Your task to perform on an android device: What's the news in Singapore? Image 0: 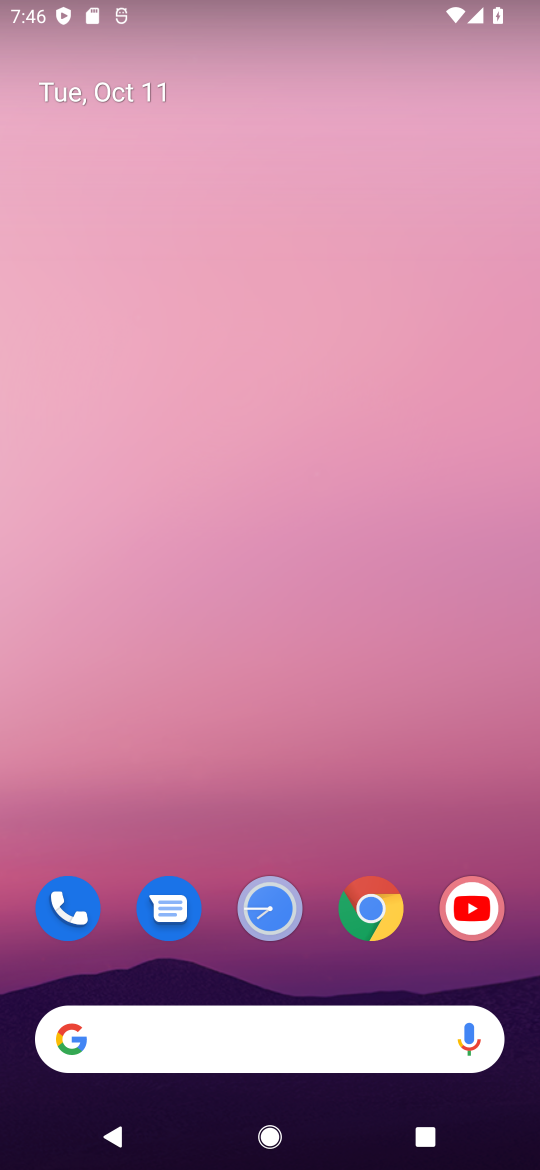
Step 0: click (365, 1033)
Your task to perform on an android device: What's the news in Singapore? Image 1: 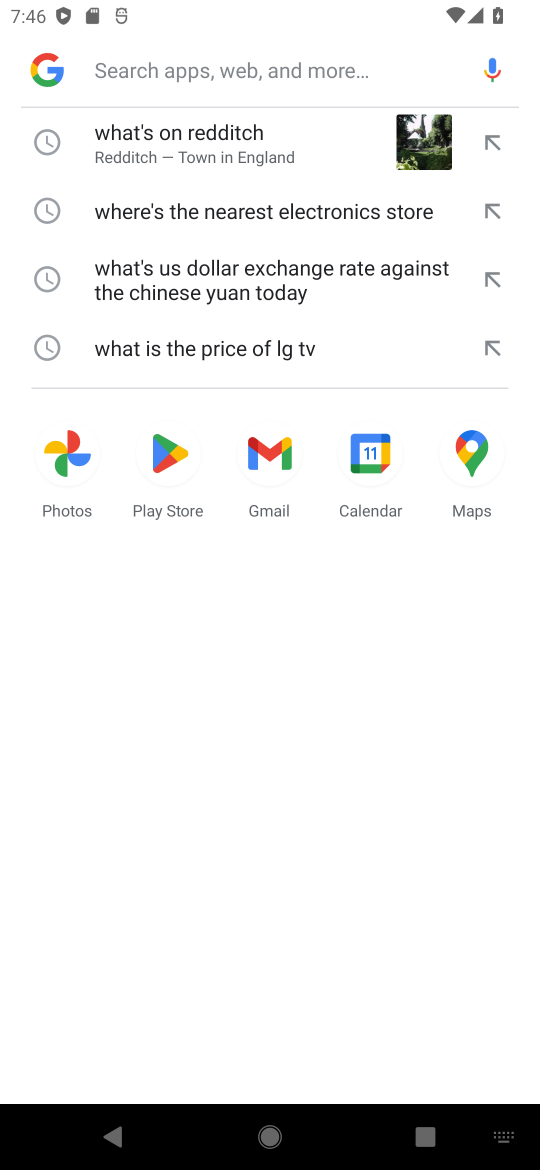
Step 1: type "What's the news in Singapore?"
Your task to perform on an android device: What's the news in Singapore? Image 2: 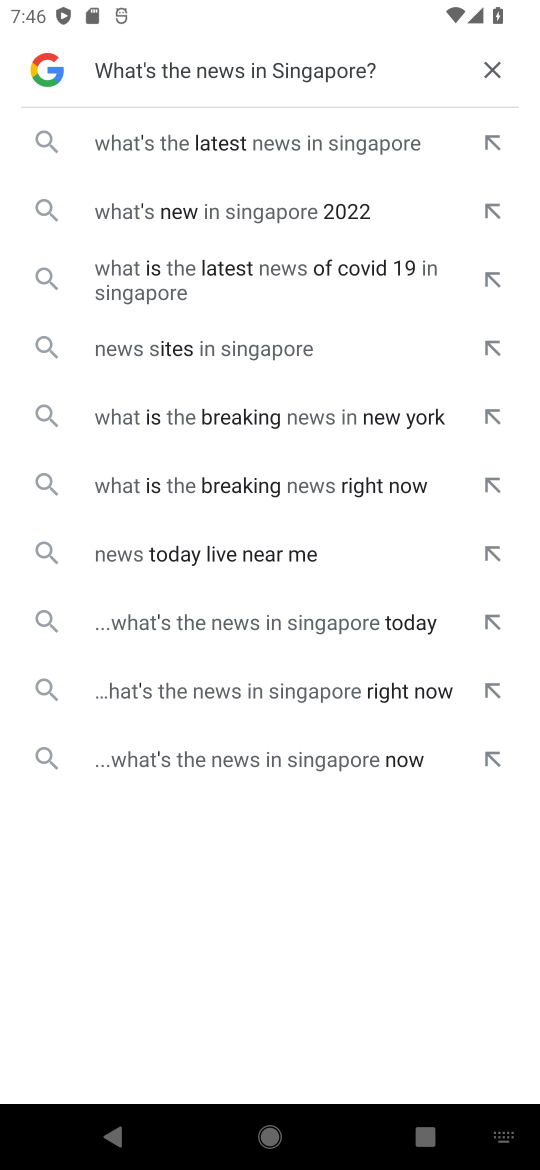
Step 2: click (215, 141)
Your task to perform on an android device: What's the news in Singapore? Image 3: 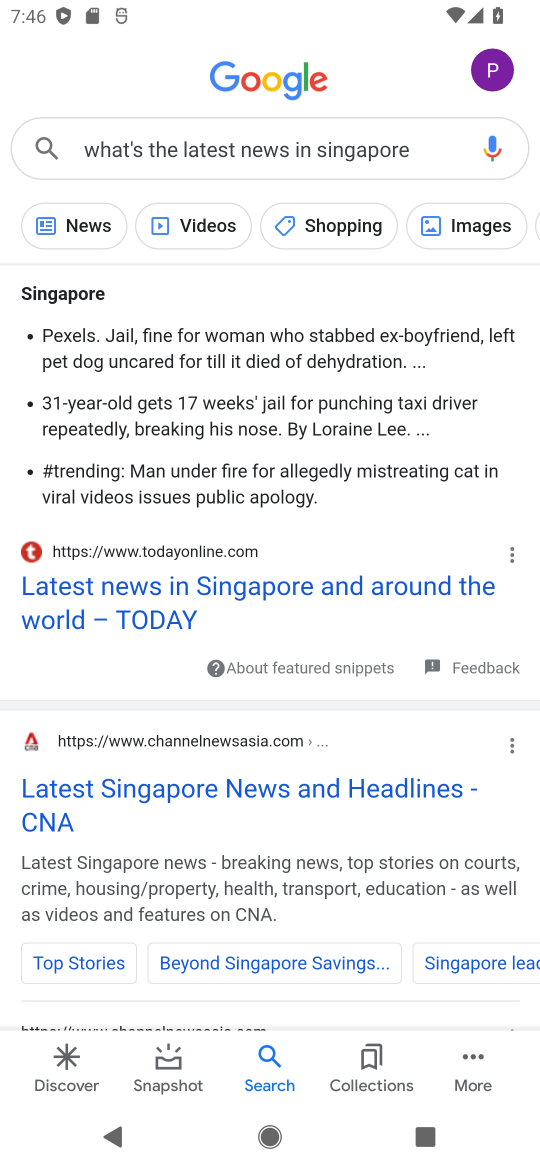
Step 3: click (186, 591)
Your task to perform on an android device: What's the news in Singapore? Image 4: 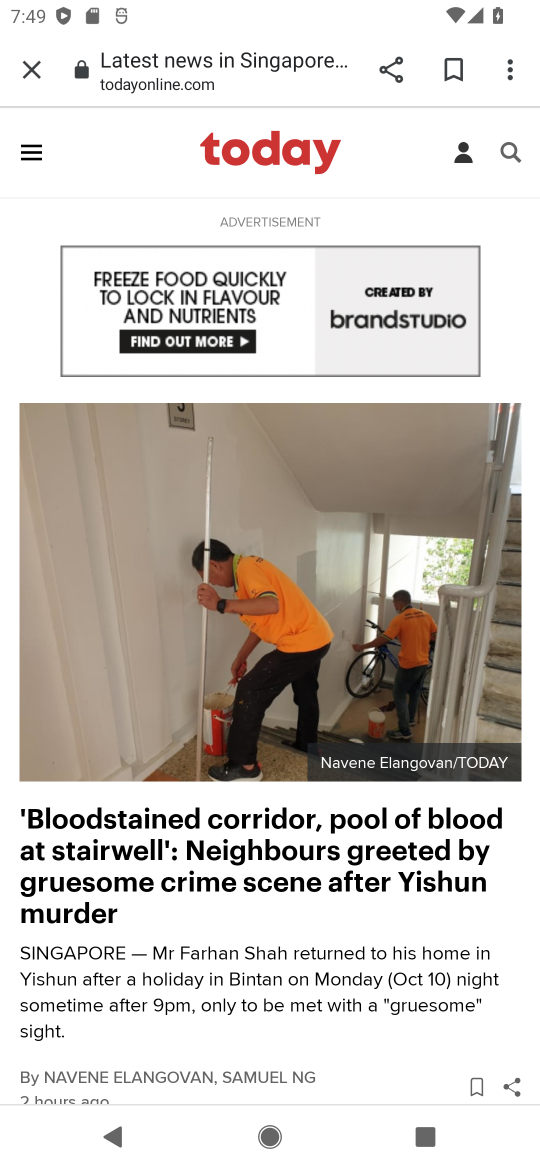
Step 4: task complete